Your task to perform on an android device: Do I have any events tomorrow? Image 0: 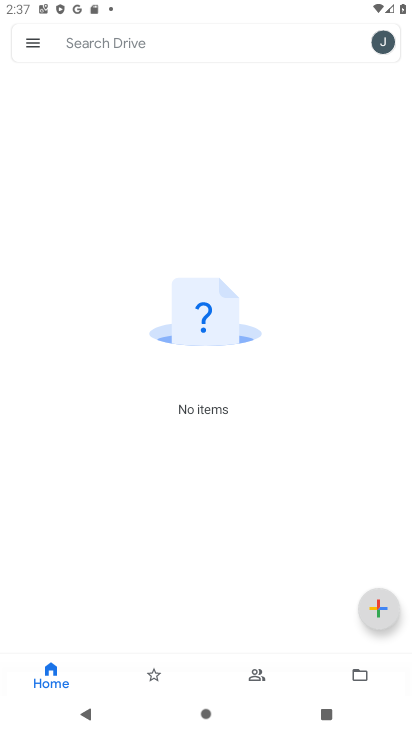
Step 0: press home button
Your task to perform on an android device: Do I have any events tomorrow? Image 1: 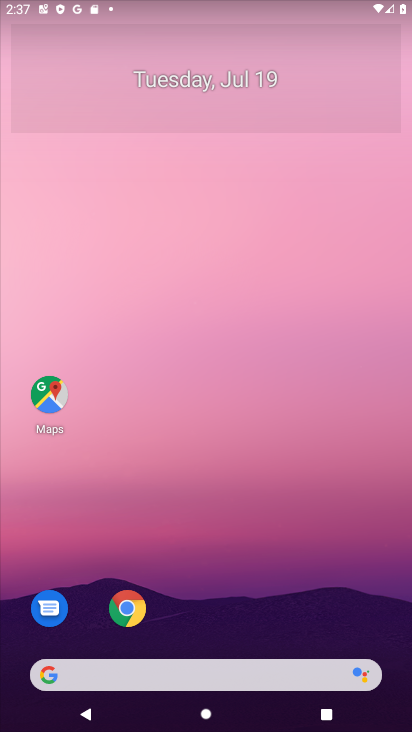
Step 1: drag from (325, 618) to (285, 109)
Your task to perform on an android device: Do I have any events tomorrow? Image 2: 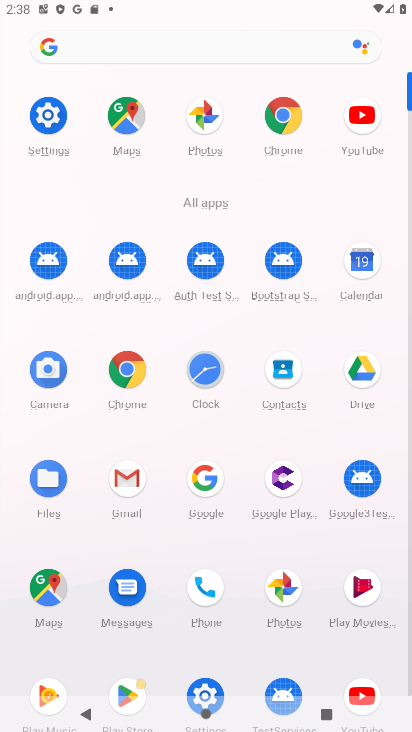
Step 2: click (354, 266)
Your task to perform on an android device: Do I have any events tomorrow? Image 3: 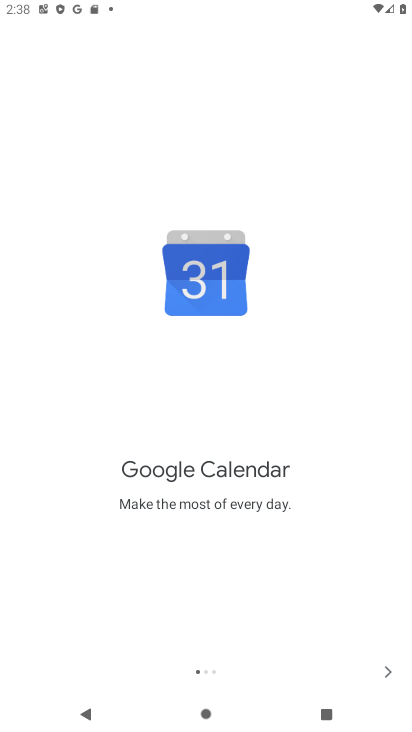
Step 3: click (392, 674)
Your task to perform on an android device: Do I have any events tomorrow? Image 4: 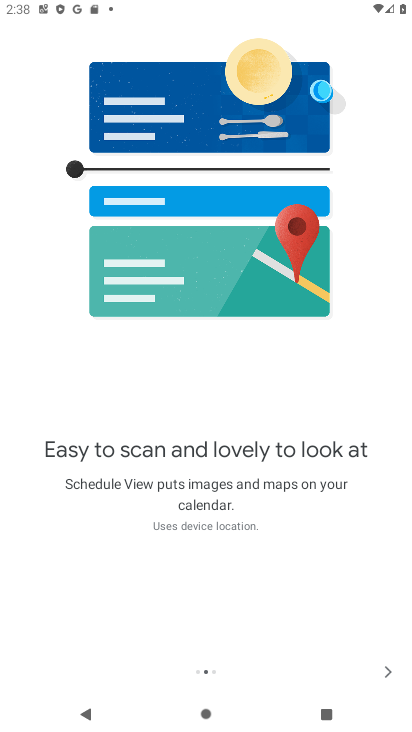
Step 4: click (389, 669)
Your task to perform on an android device: Do I have any events tomorrow? Image 5: 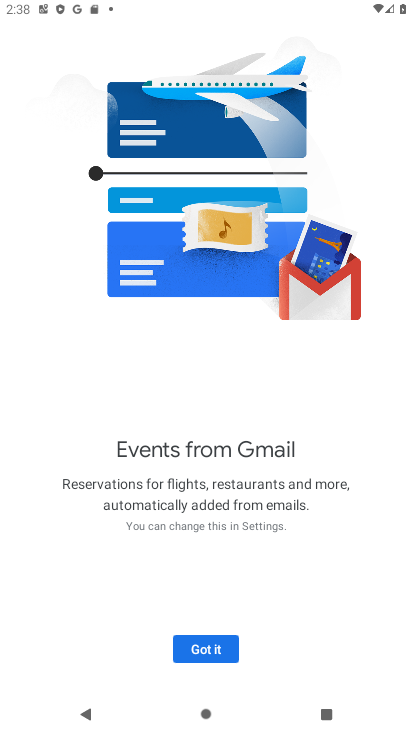
Step 5: click (208, 651)
Your task to perform on an android device: Do I have any events tomorrow? Image 6: 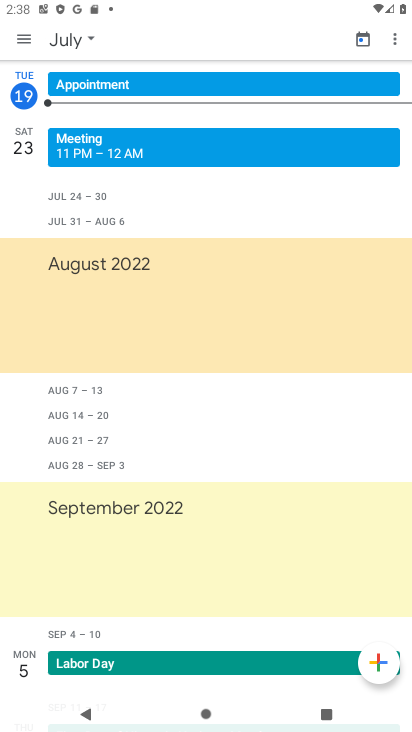
Step 6: click (62, 37)
Your task to perform on an android device: Do I have any events tomorrow? Image 7: 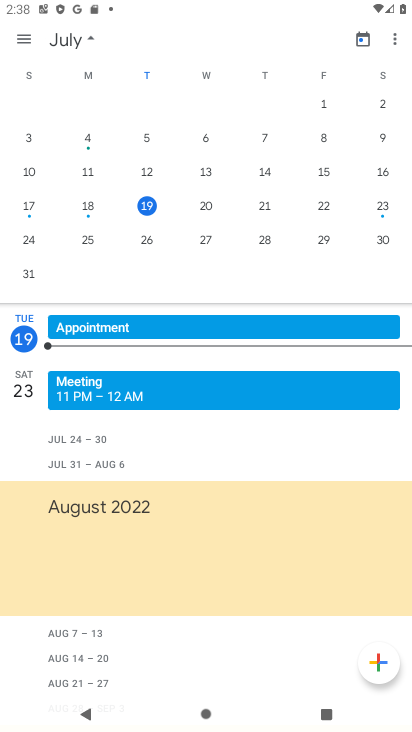
Step 7: click (208, 205)
Your task to perform on an android device: Do I have any events tomorrow? Image 8: 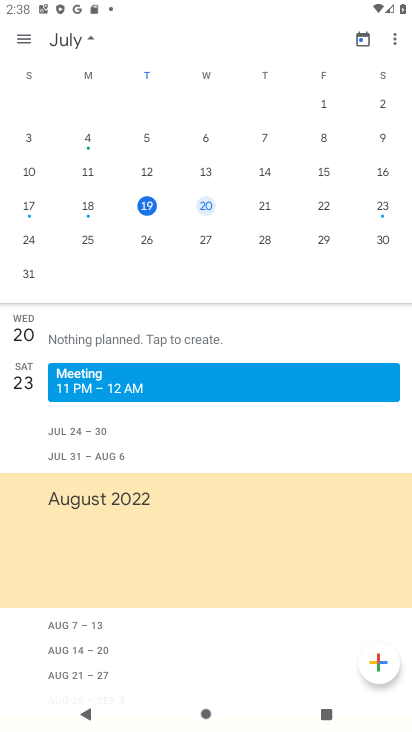
Step 8: click (164, 323)
Your task to perform on an android device: Do I have any events tomorrow? Image 9: 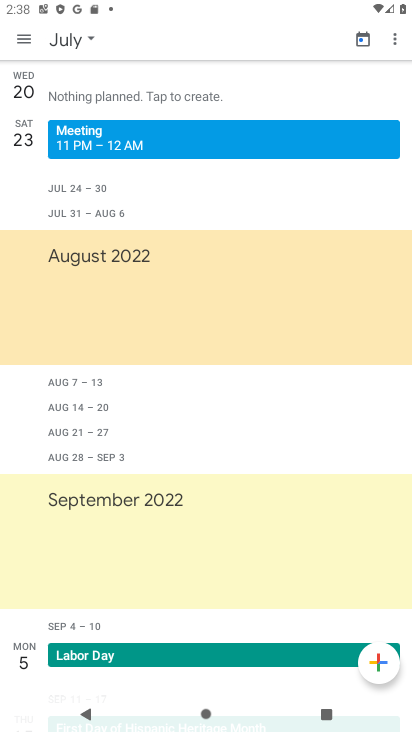
Step 9: task complete